Your task to perform on an android device: Open wifi settings Image 0: 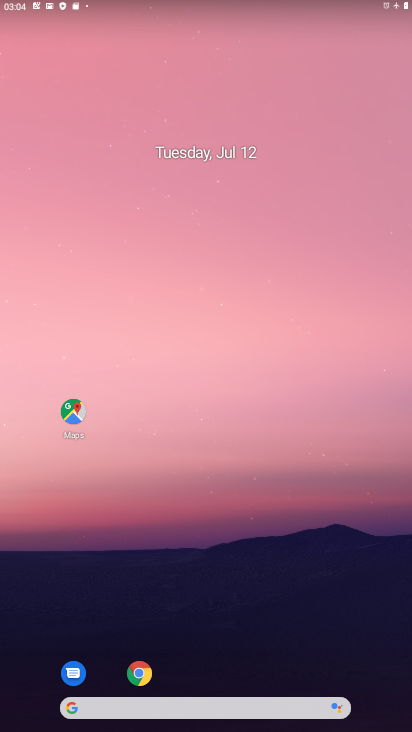
Step 0: press home button
Your task to perform on an android device: Open wifi settings Image 1: 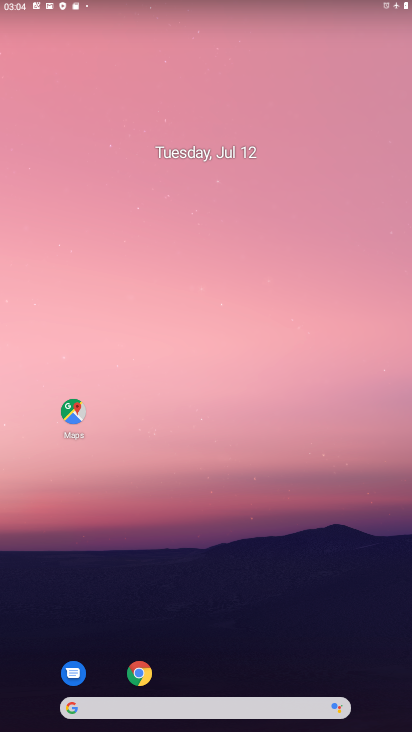
Step 1: drag from (222, 565) to (217, 101)
Your task to perform on an android device: Open wifi settings Image 2: 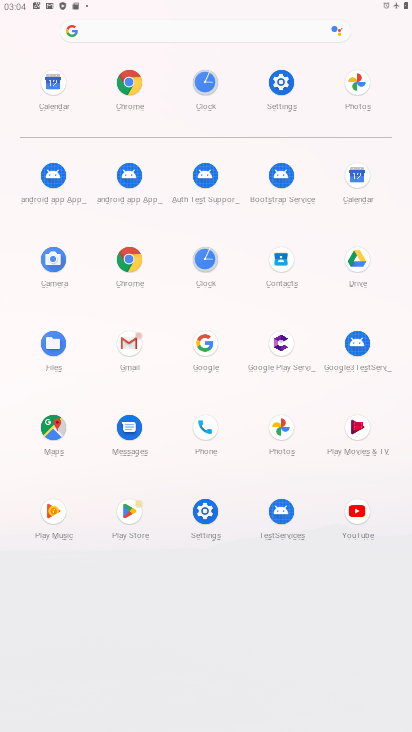
Step 2: click (280, 79)
Your task to perform on an android device: Open wifi settings Image 3: 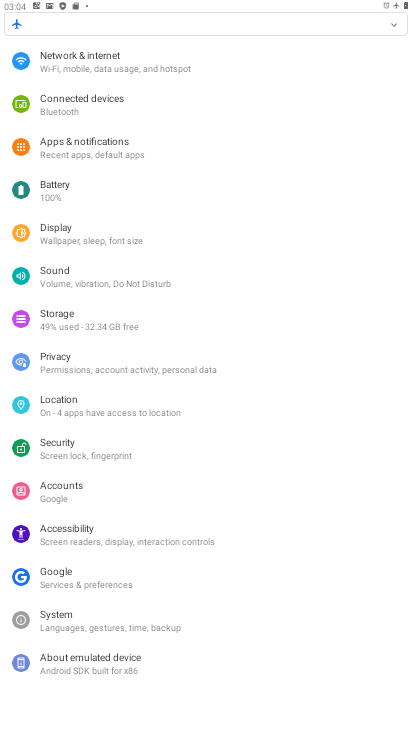
Step 3: click (129, 60)
Your task to perform on an android device: Open wifi settings Image 4: 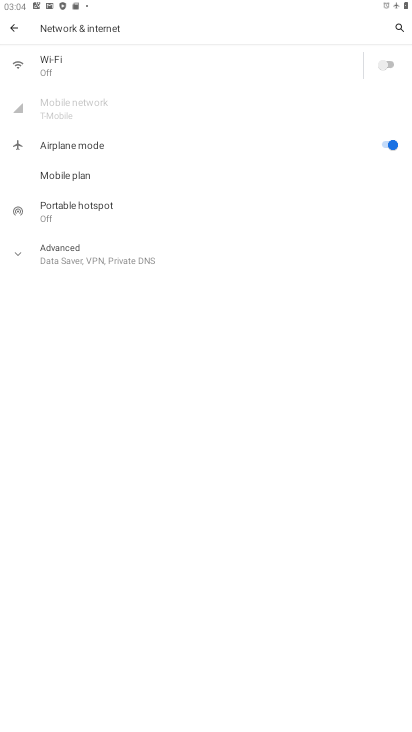
Step 4: click (71, 72)
Your task to perform on an android device: Open wifi settings Image 5: 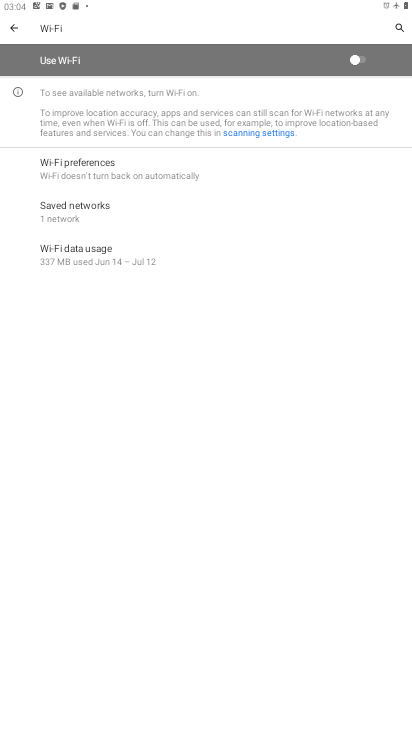
Step 5: task complete